Your task to perform on an android device: visit the assistant section in the google photos Image 0: 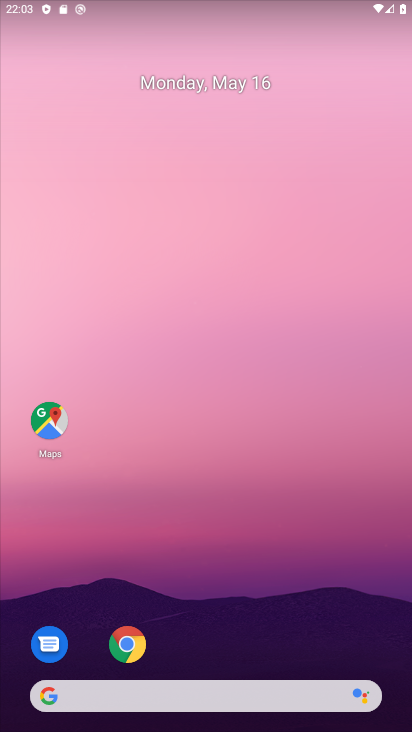
Step 0: click (410, 609)
Your task to perform on an android device: visit the assistant section in the google photos Image 1: 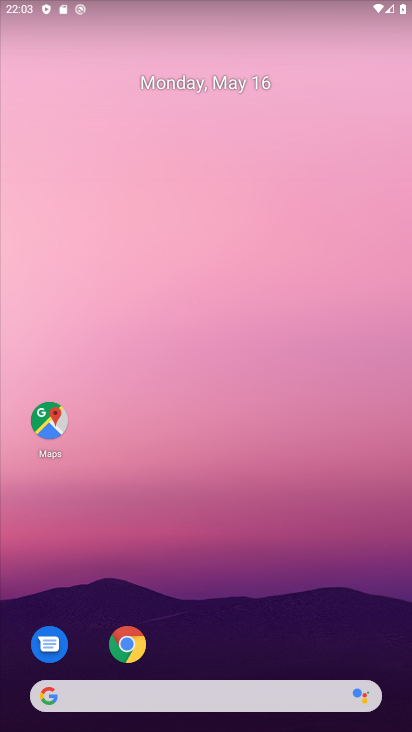
Step 1: drag from (52, 579) to (219, 222)
Your task to perform on an android device: visit the assistant section in the google photos Image 2: 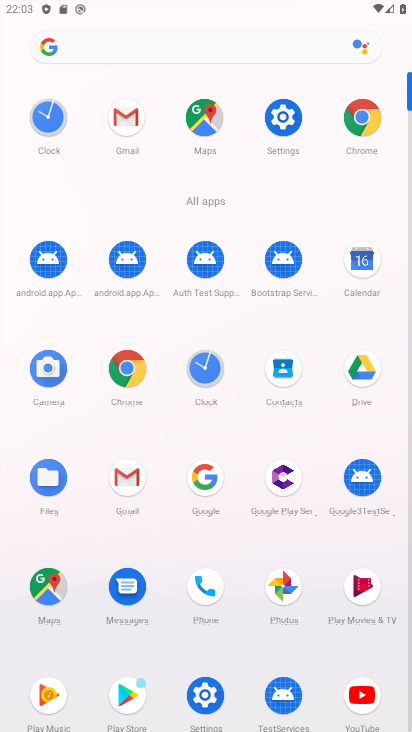
Step 2: click (273, 583)
Your task to perform on an android device: visit the assistant section in the google photos Image 3: 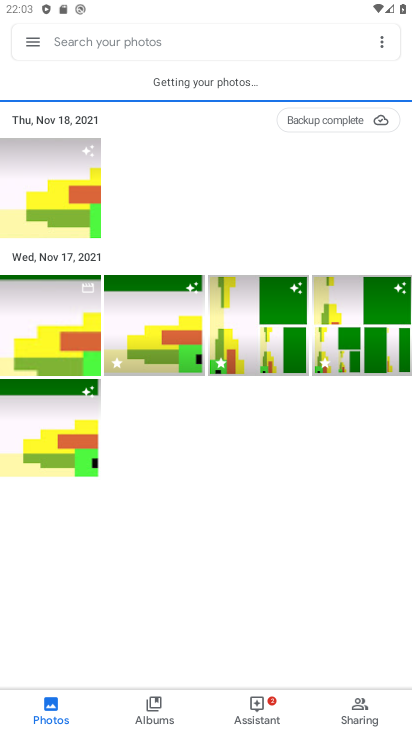
Step 3: click (251, 708)
Your task to perform on an android device: visit the assistant section in the google photos Image 4: 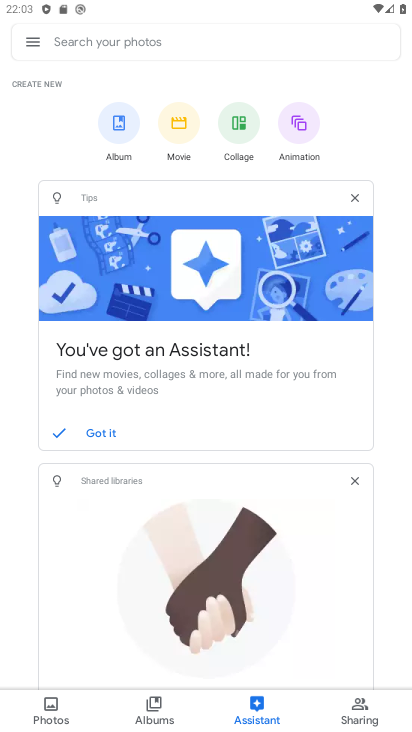
Step 4: task complete